Your task to perform on an android device: Open ESPN.com Image 0: 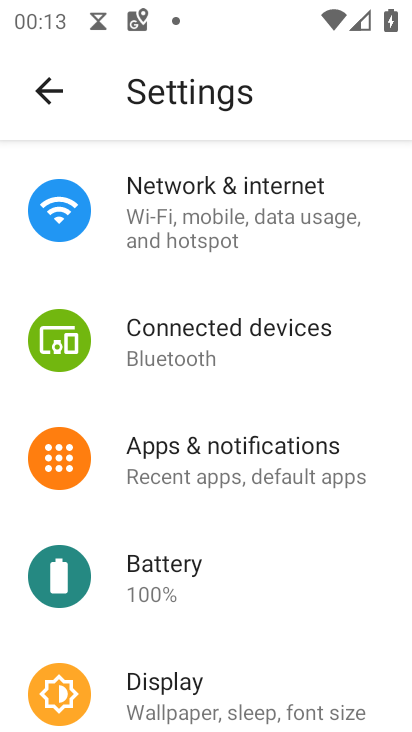
Step 0: press home button
Your task to perform on an android device: Open ESPN.com Image 1: 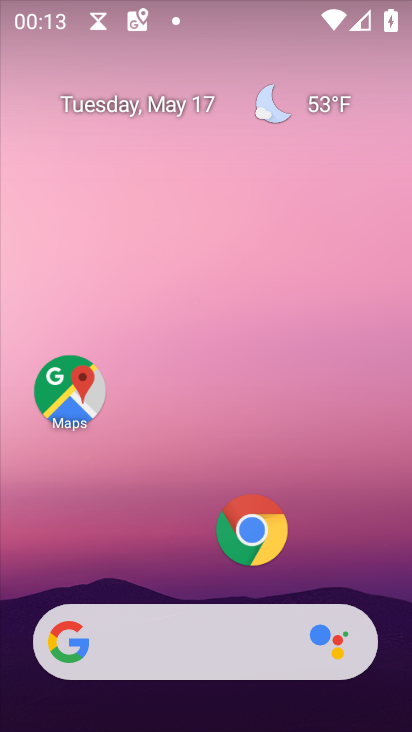
Step 1: click (250, 542)
Your task to perform on an android device: Open ESPN.com Image 2: 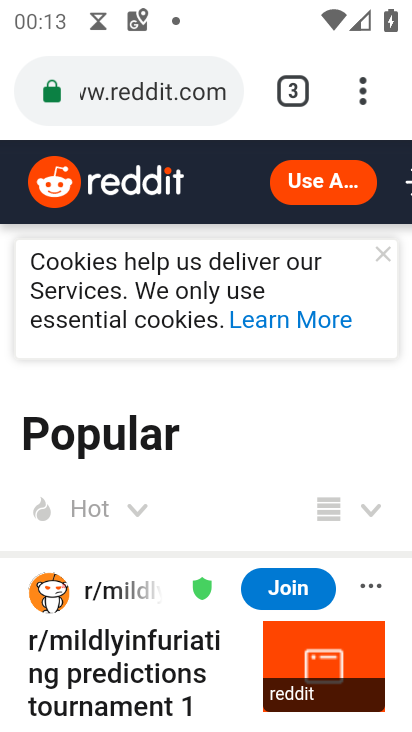
Step 2: click (303, 88)
Your task to perform on an android device: Open ESPN.com Image 3: 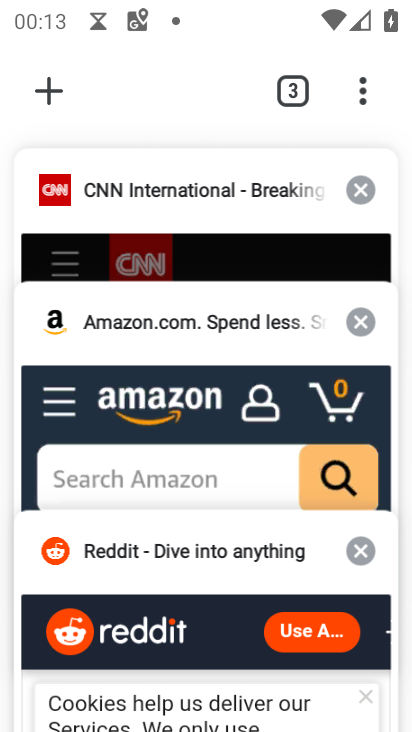
Step 3: click (53, 89)
Your task to perform on an android device: Open ESPN.com Image 4: 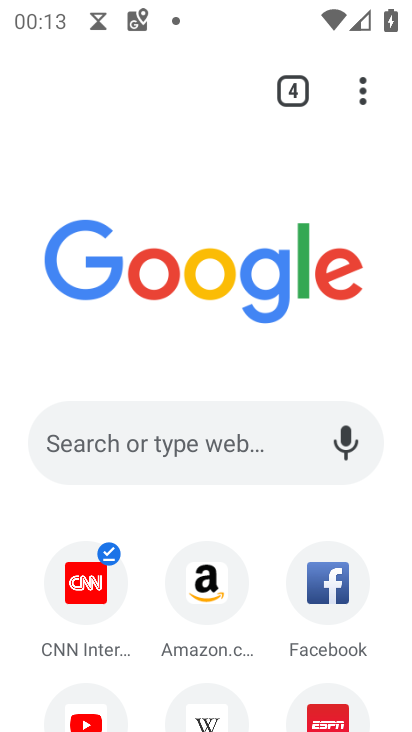
Step 4: click (331, 703)
Your task to perform on an android device: Open ESPN.com Image 5: 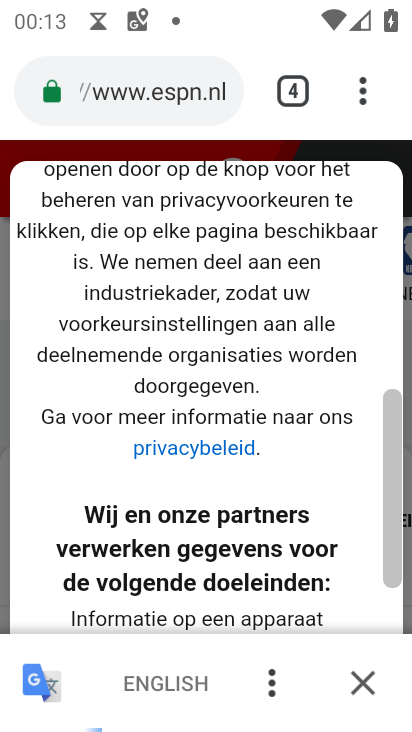
Step 5: task complete